Your task to perform on an android device: open app "Google Sheets" (install if not already installed) Image 0: 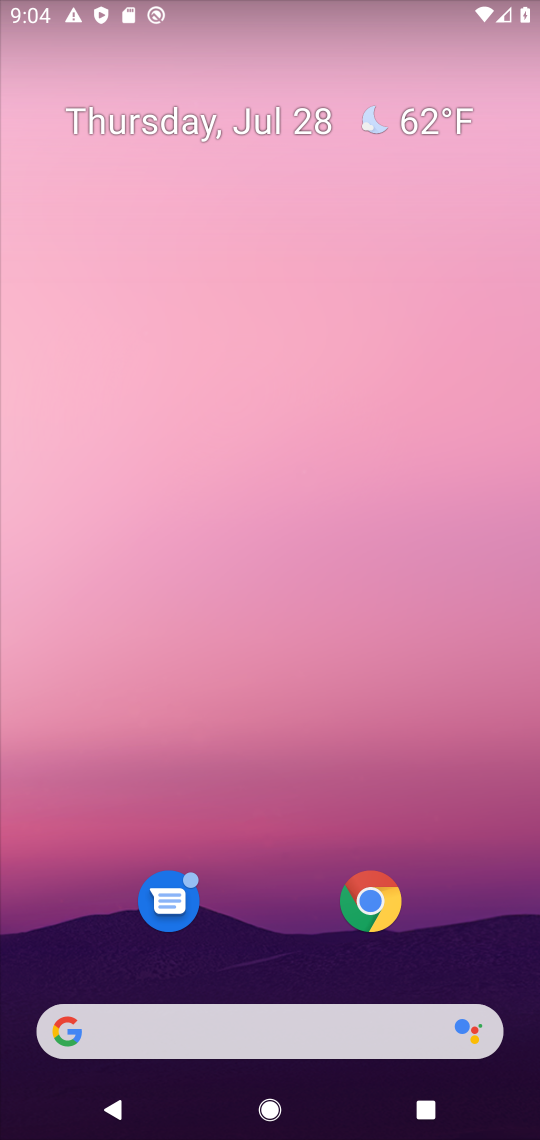
Step 0: drag from (313, 756) to (358, 40)
Your task to perform on an android device: open app "Google Sheets" (install if not already installed) Image 1: 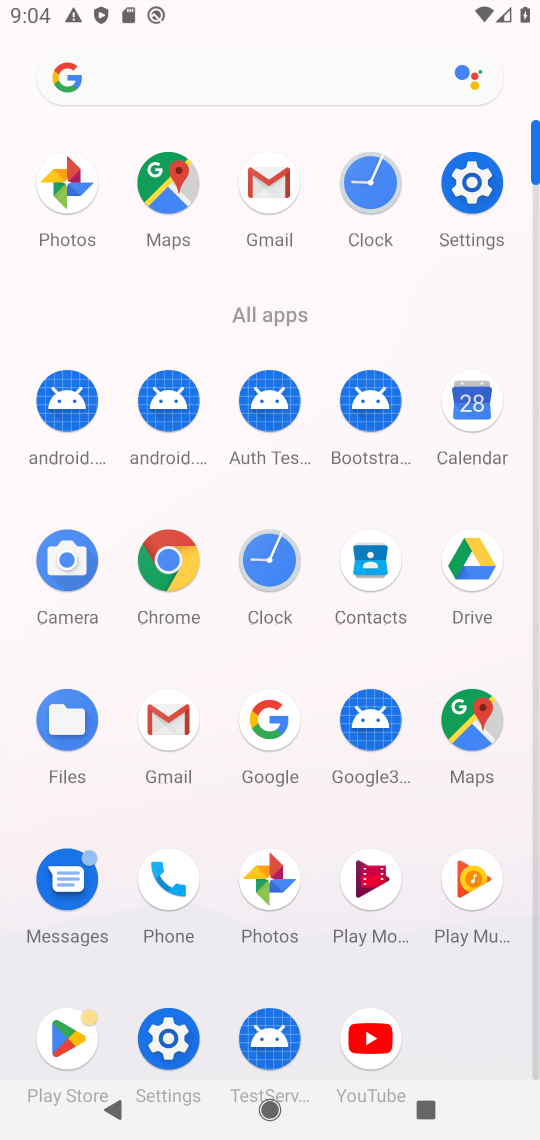
Step 1: click (65, 1025)
Your task to perform on an android device: open app "Google Sheets" (install if not already installed) Image 2: 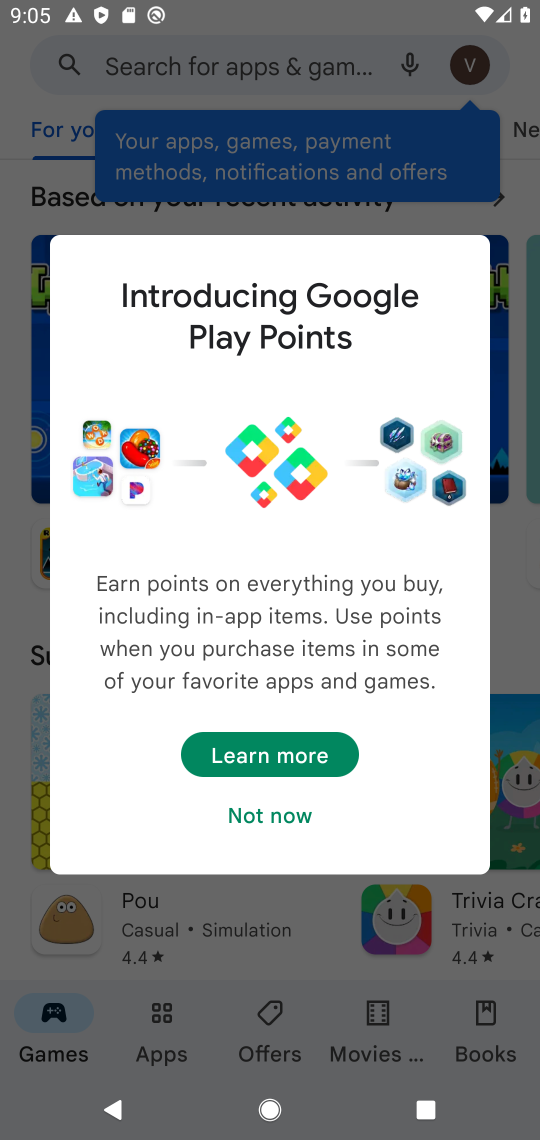
Step 2: click (280, 812)
Your task to perform on an android device: open app "Google Sheets" (install if not already installed) Image 3: 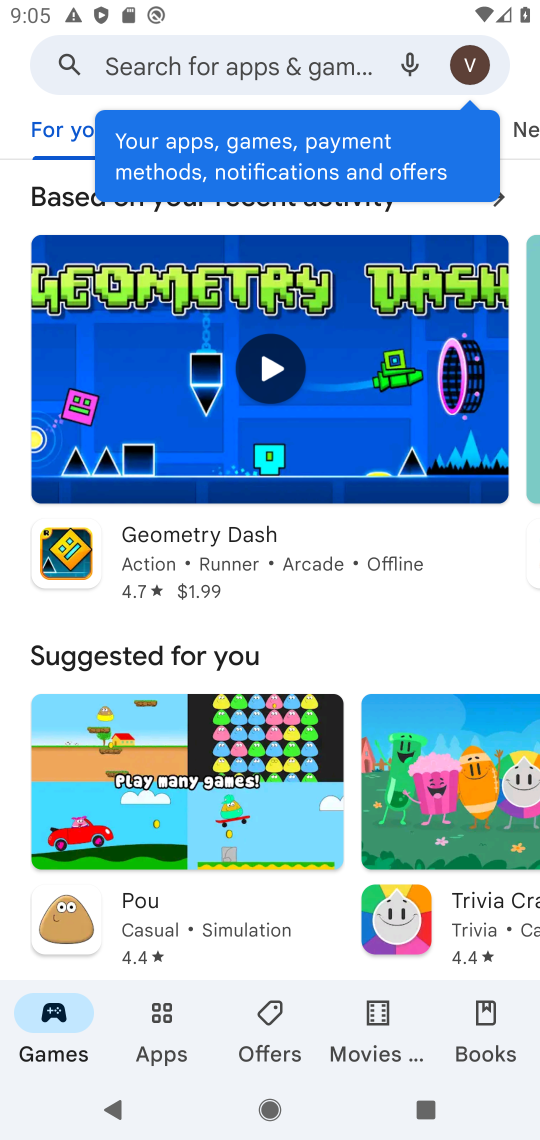
Step 3: click (303, 54)
Your task to perform on an android device: open app "Google Sheets" (install if not already installed) Image 4: 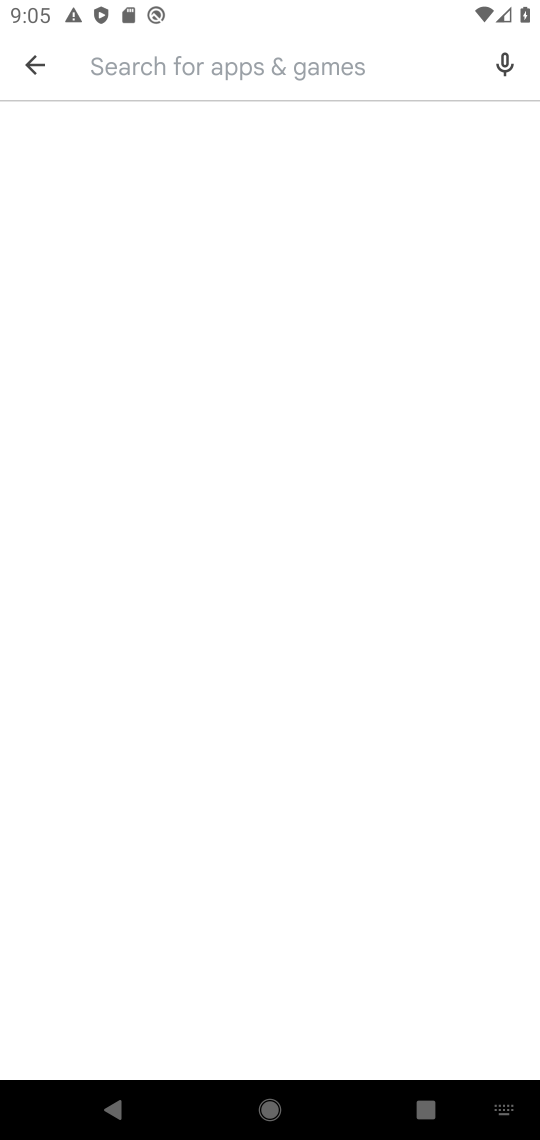
Step 4: type "google sheets"
Your task to perform on an android device: open app "Google Sheets" (install if not already installed) Image 5: 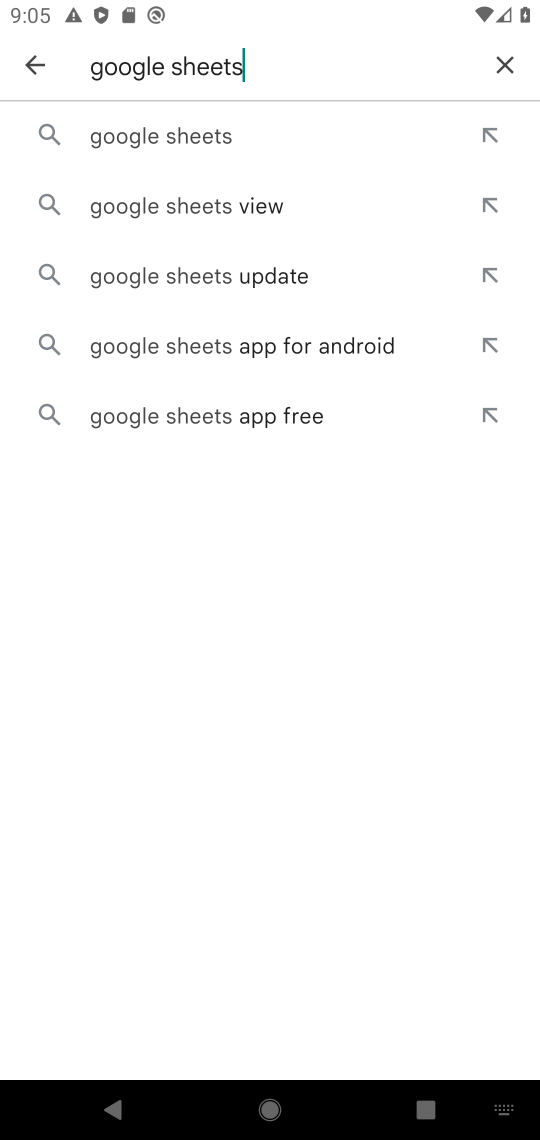
Step 5: click (216, 140)
Your task to perform on an android device: open app "Google Sheets" (install if not already installed) Image 6: 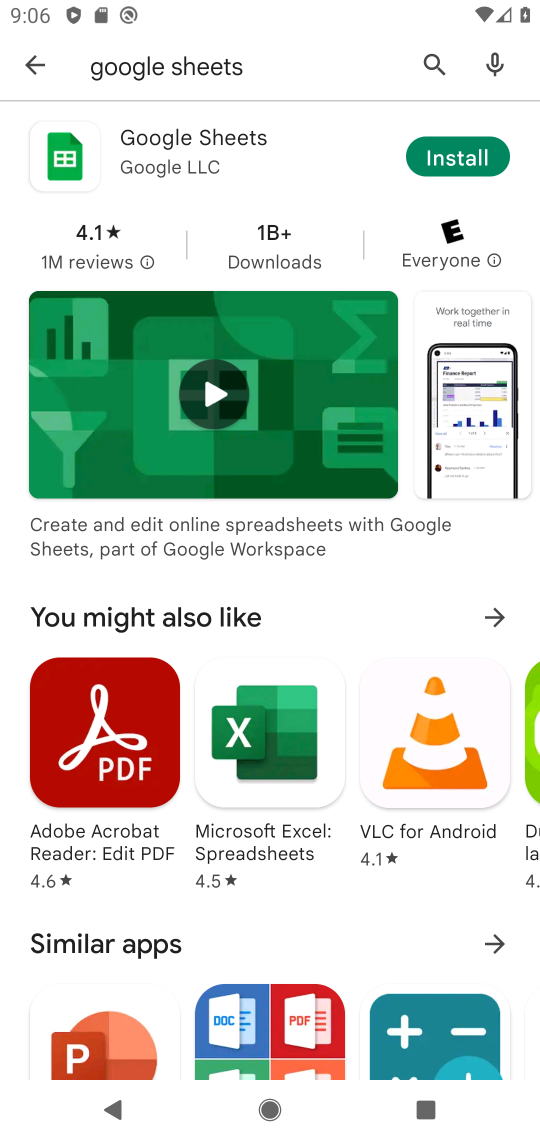
Step 6: click (440, 151)
Your task to perform on an android device: open app "Google Sheets" (install if not already installed) Image 7: 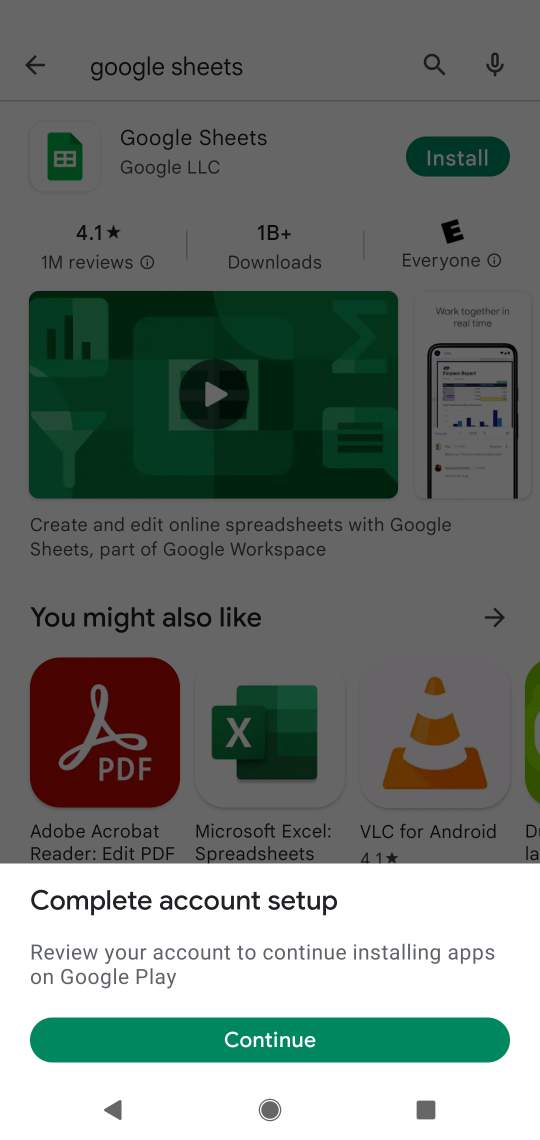
Step 7: click (480, 1048)
Your task to perform on an android device: open app "Google Sheets" (install if not already installed) Image 8: 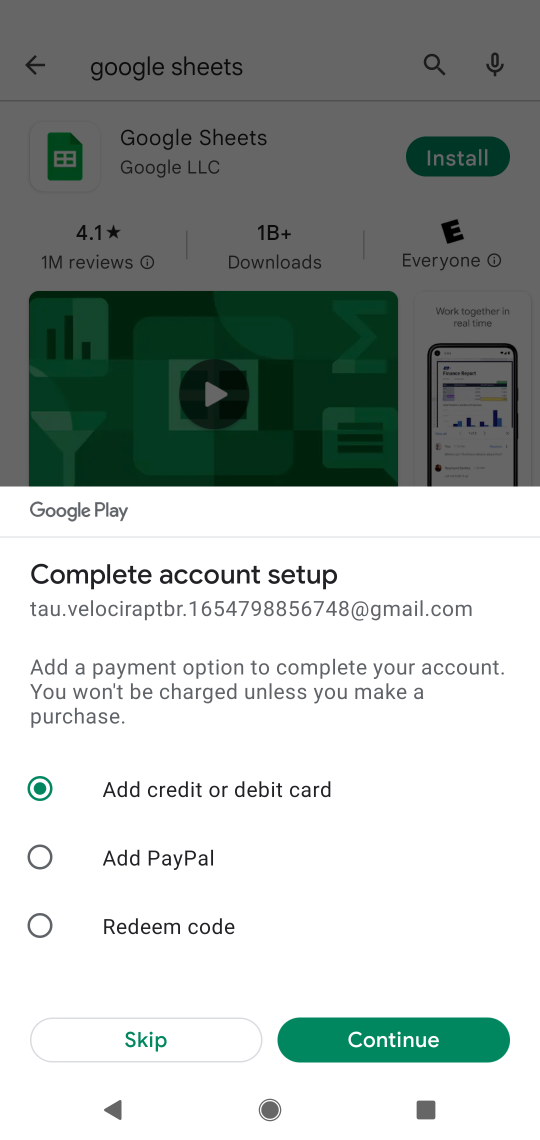
Step 8: click (247, 1041)
Your task to perform on an android device: open app "Google Sheets" (install if not already installed) Image 9: 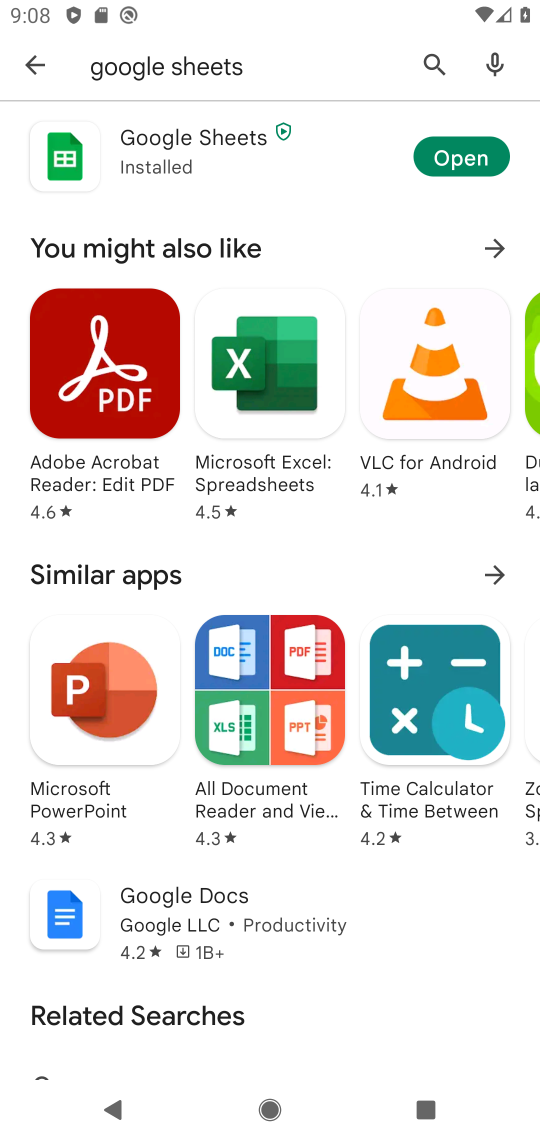
Step 9: click (457, 159)
Your task to perform on an android device: open app "Google Sheets" (install if not already installed) Image 10: 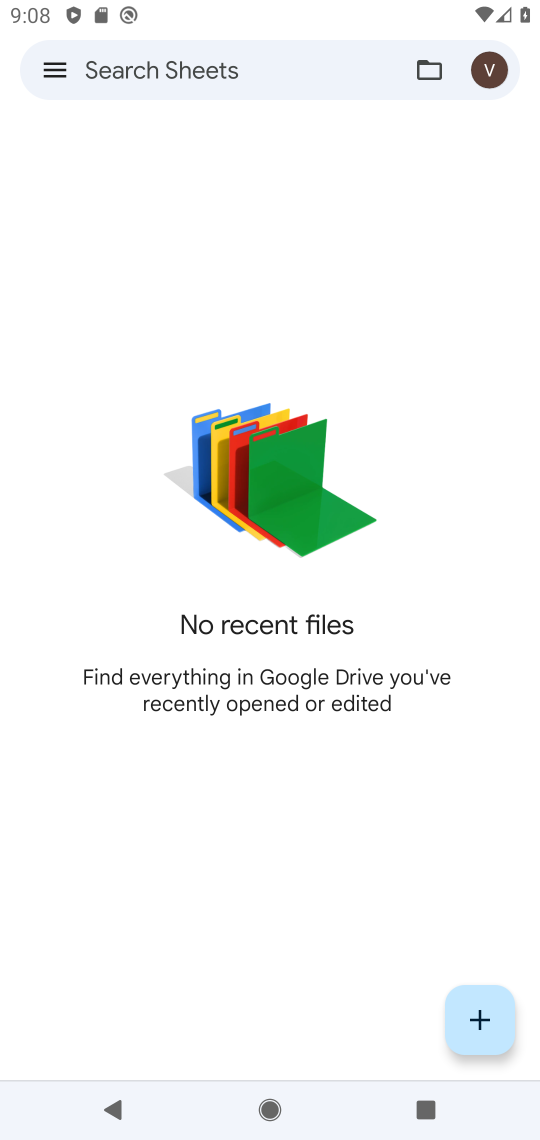
Step 10: task complete